Your task to perform on an android device: change the clock style Image 0: 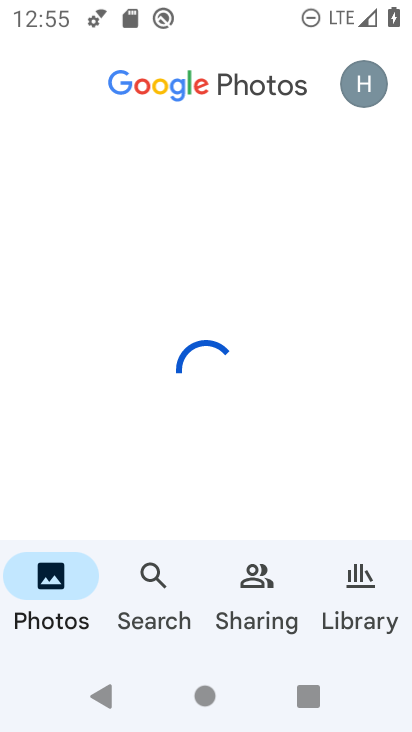
Step 0: press home button
Your task to perform on an android device: change the clock style Image 1: 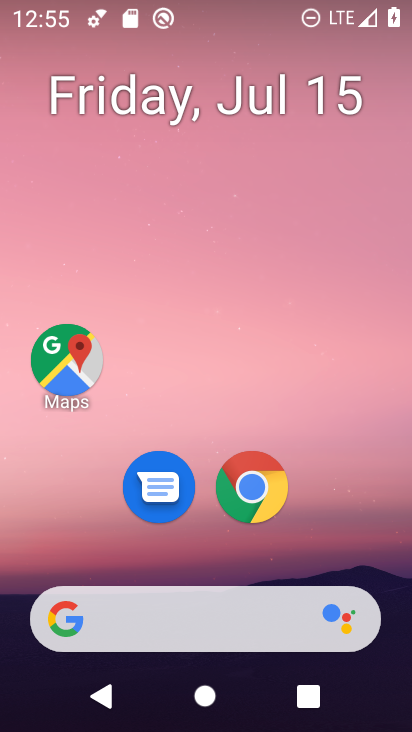
Step 1: drag from (262, 558) to (258, 216)
Your task to perform on an android device: change the clock style Image 2: 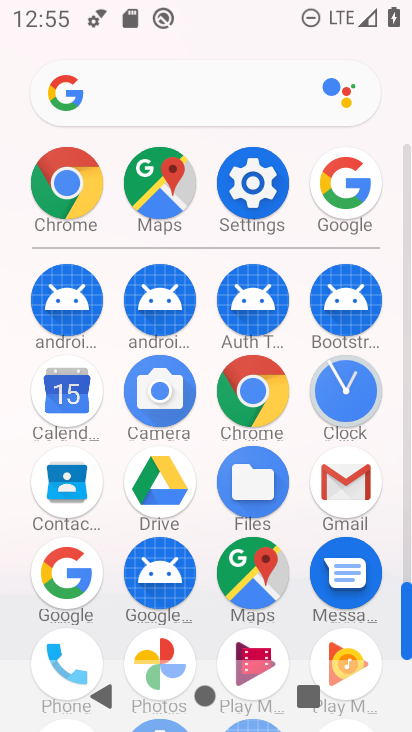
Step 2: click (348, 404)
Your task to perform on an android device: change the clock style Image 3: 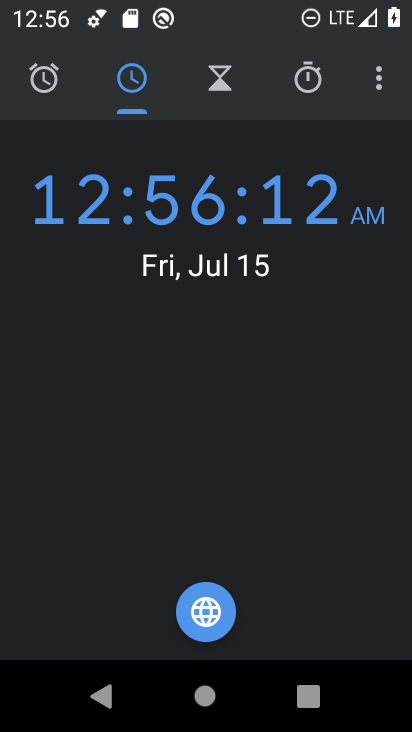
Step 3: click (381, 88)
Your task to perform on an android device: change the clock style Image 4: 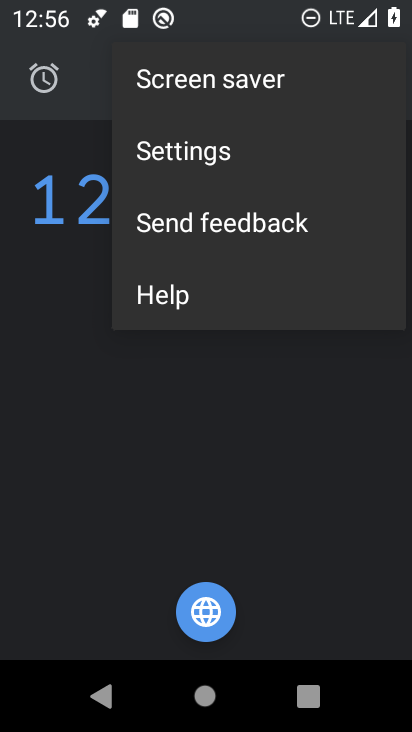
Step 4: click (228, 166)
Your task to perform on an android device: change the clock style Image 5: 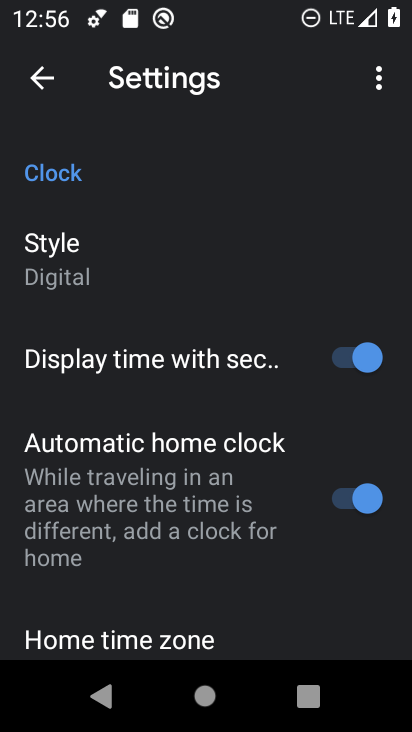
Step 5: click (176, 264)
Your task to perform on an android device: change the clock style Image 6: 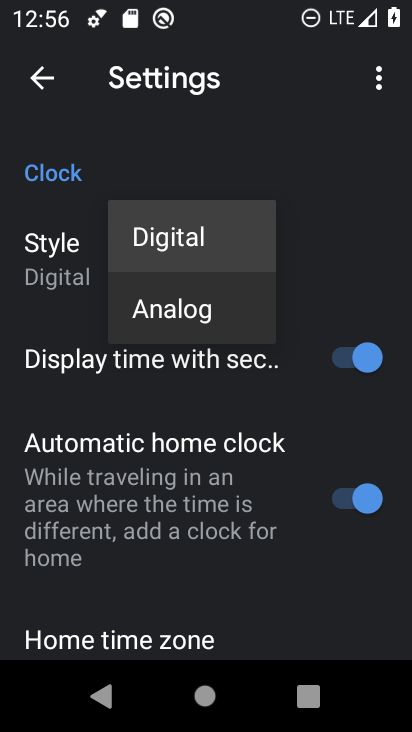
Step 6: click (214, 334)
Your task to perform on an android device: change the clock style Image 7: 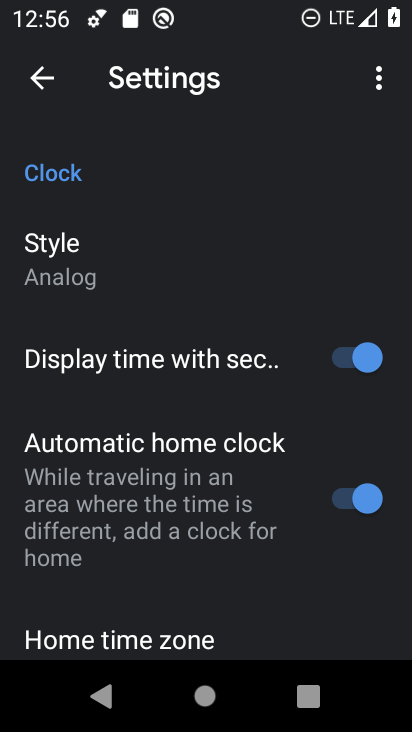
Step 7: task complete